Your task to perform on an android device: Search for Italian restaurants on Maps Image 0: 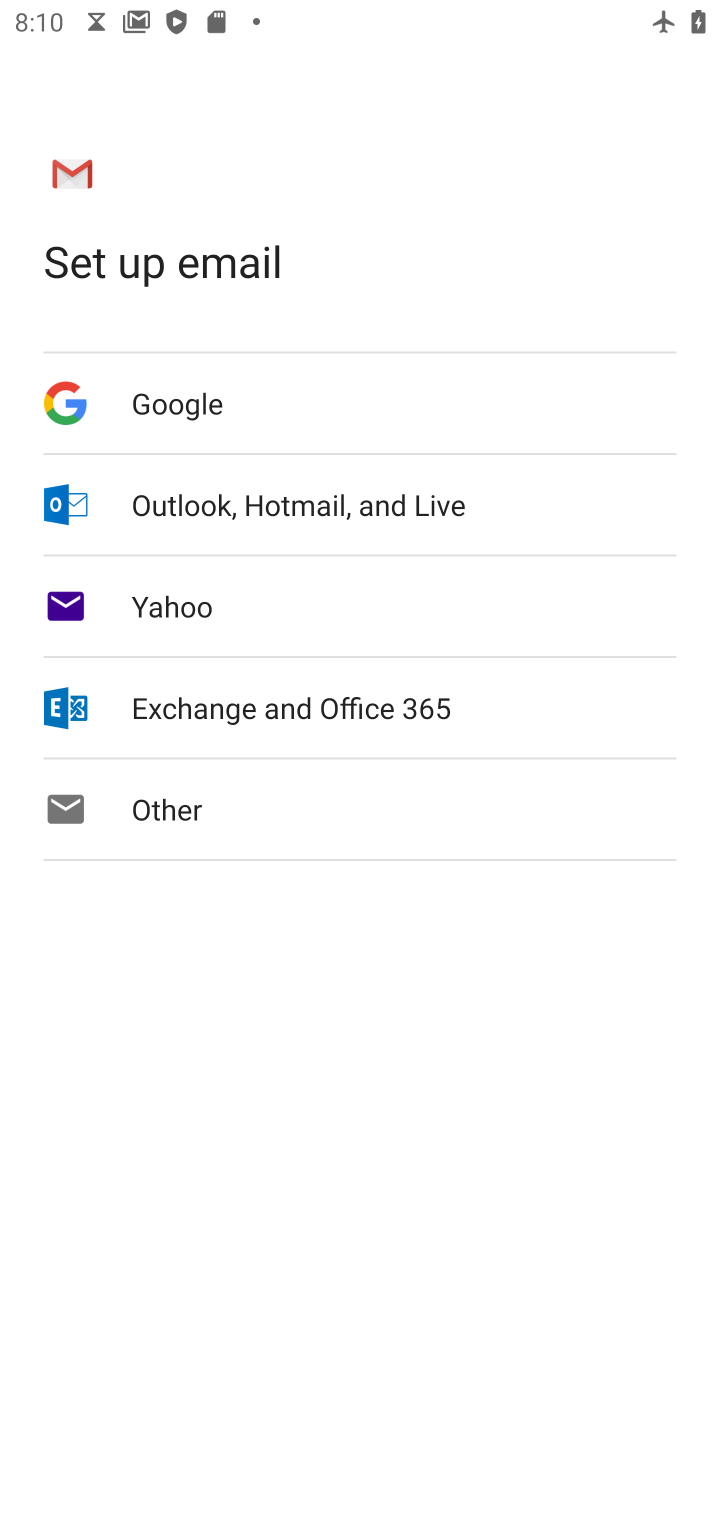
Step 0: press home button
Your task to perform on an android device: Search for Italian restaurants on Maps Image 1: 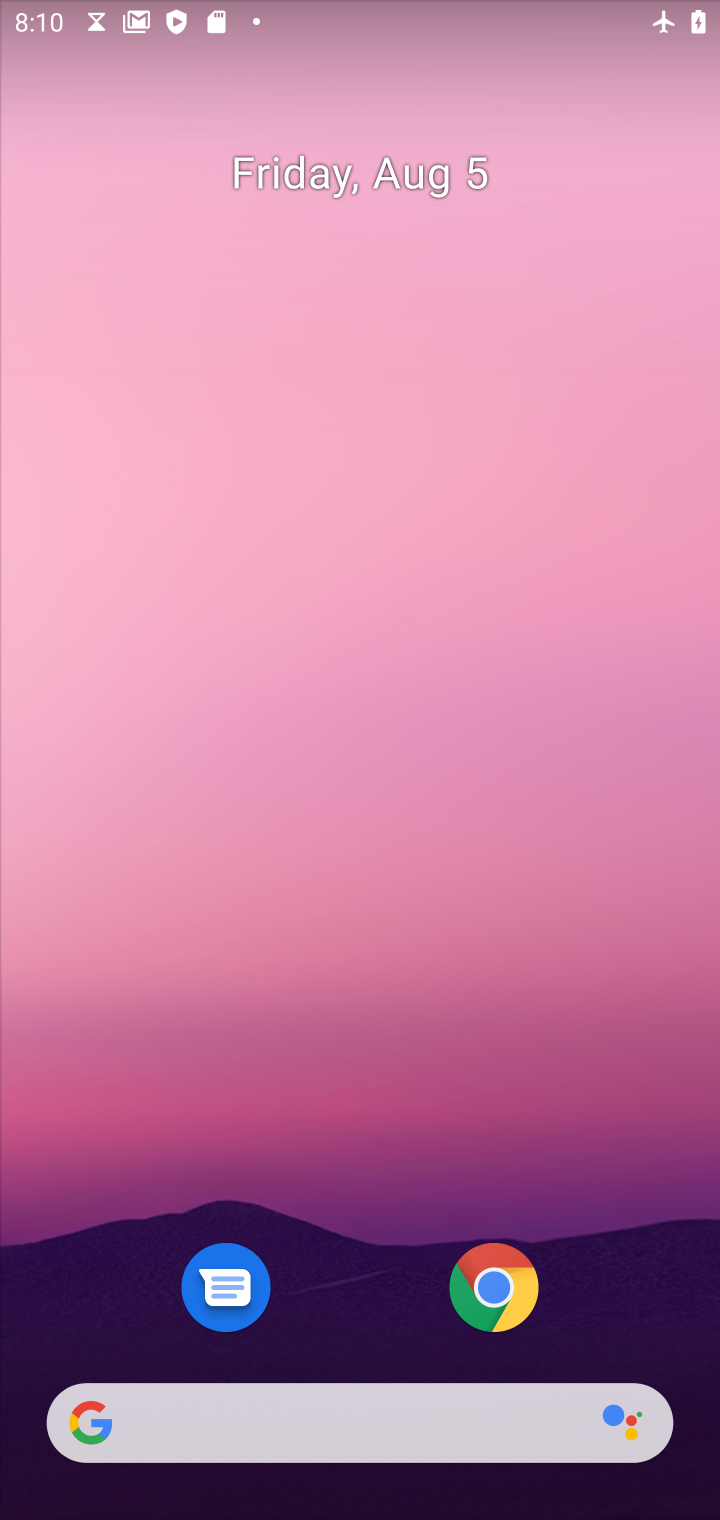
Step 1: drag from (372, 806) to (387, 185)
Your task to perform on an android device: Search for Italian restaurants on Maps Image 2: 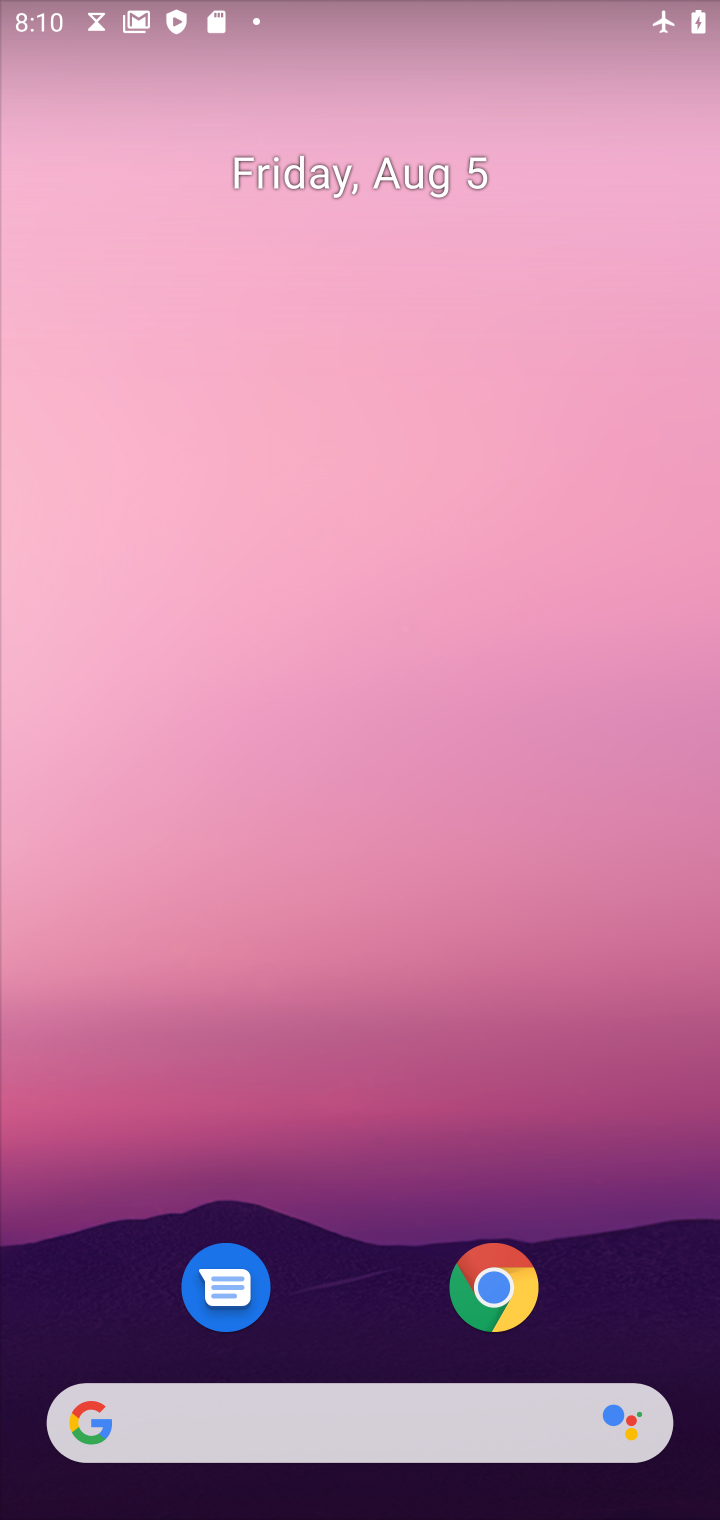
Step 2: drag from (302, 1005) to (293, 359)
Your task to perform on an android device: Search for Italian restaurants on Maps Image 3: 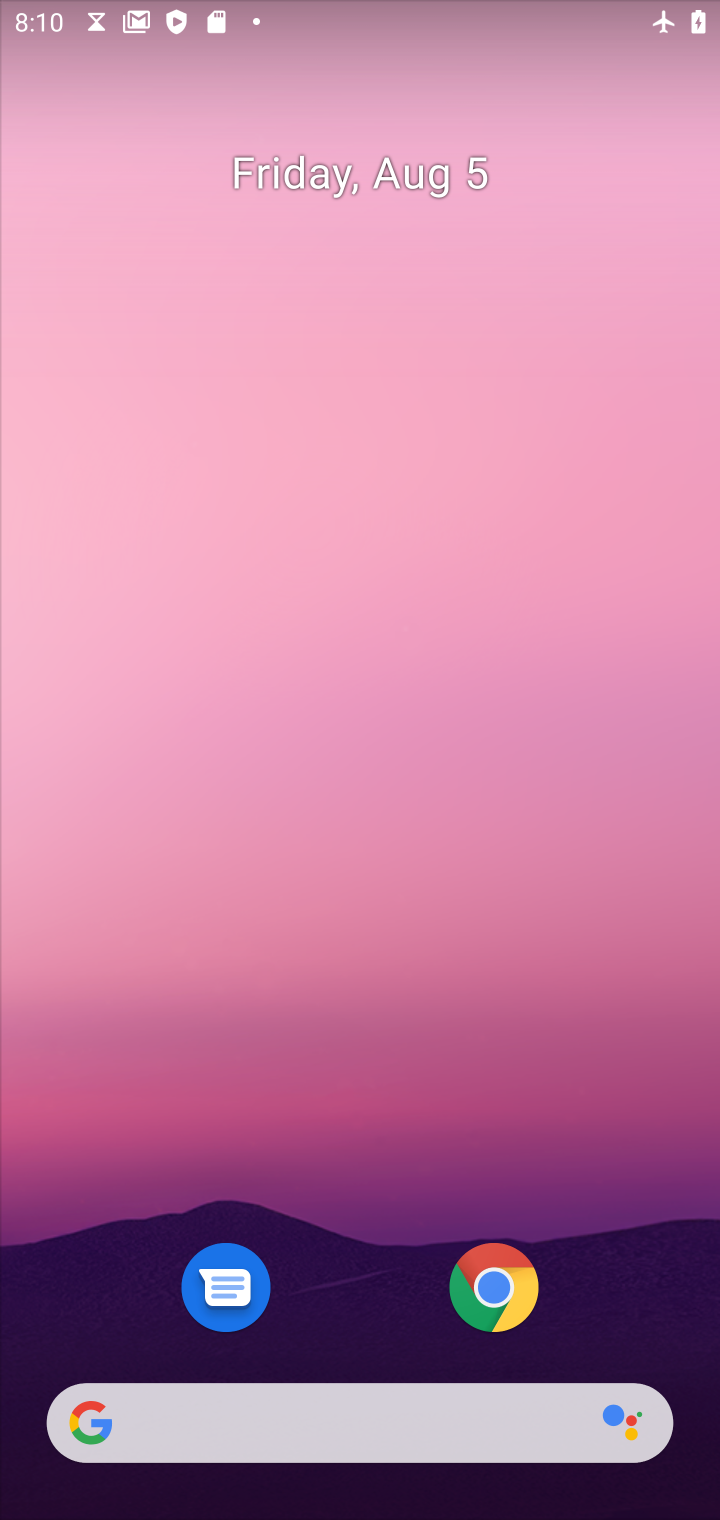
Step 3: drag from (388, 1156) to (388, 113)
Your task to perform on an android device: Search for Italian restaurants on Maps Image 4: 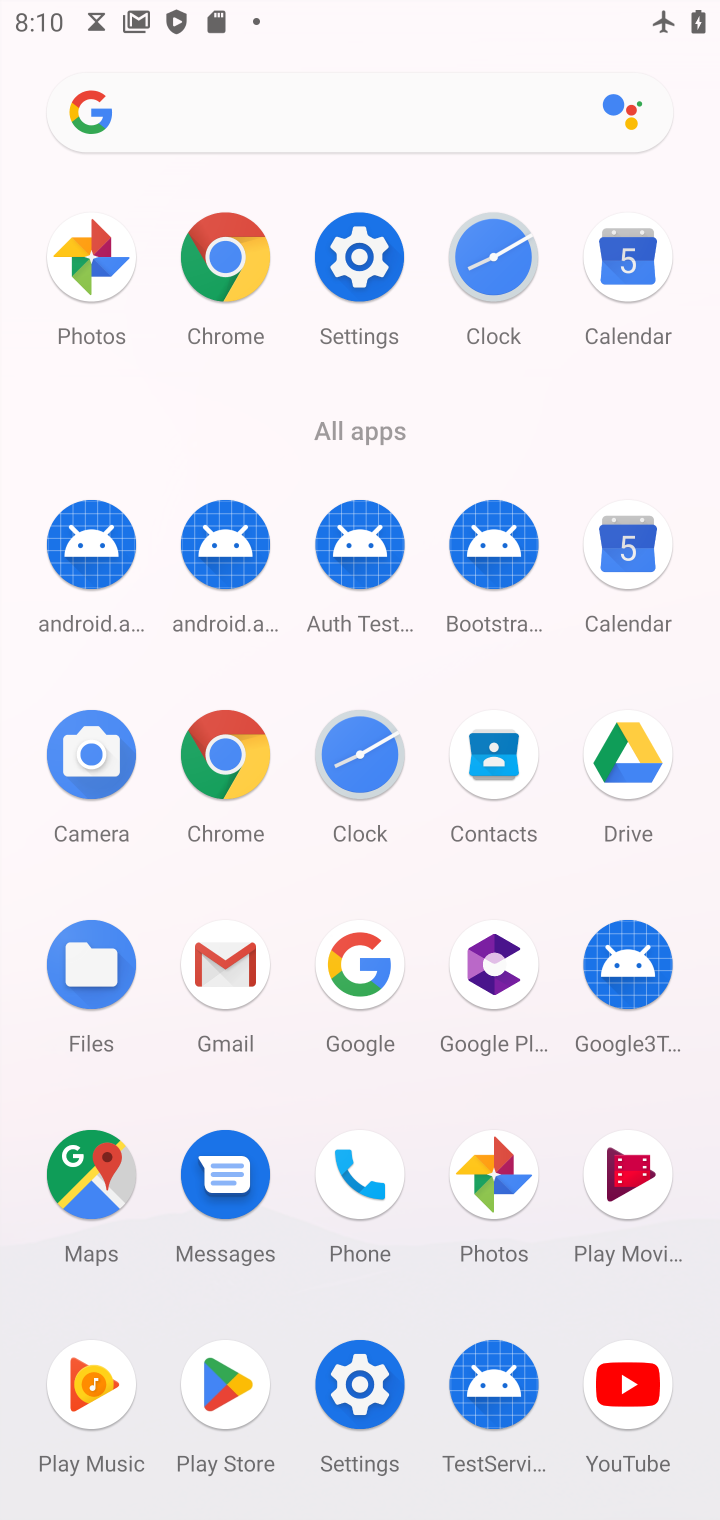
Step 4: click (99, 1153)
Your task to perform on an android device: Search for Italian restaurants on Maps Image 5: 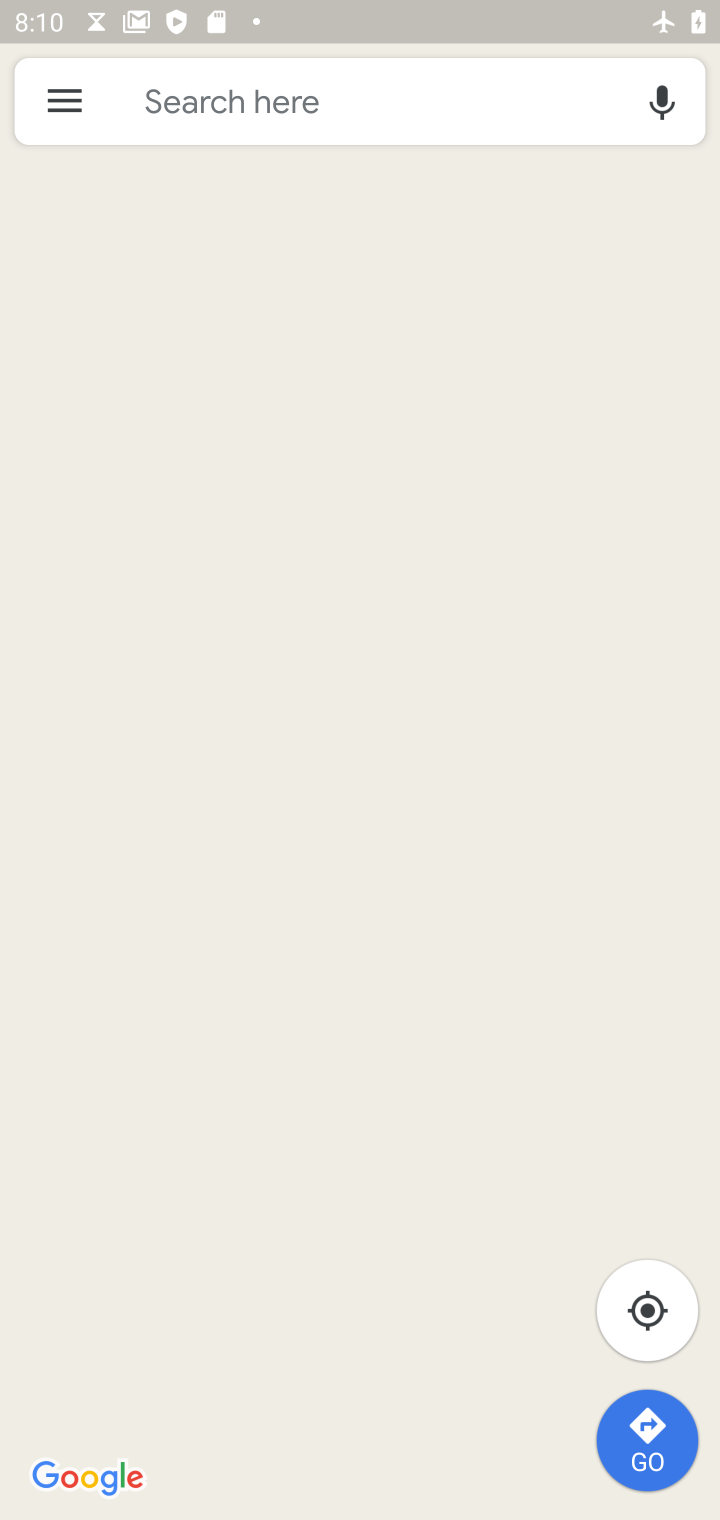
Step 5: click (336, 104)
Your task to perform on an android device: Search for Italian restaurants on Maps Image 6: 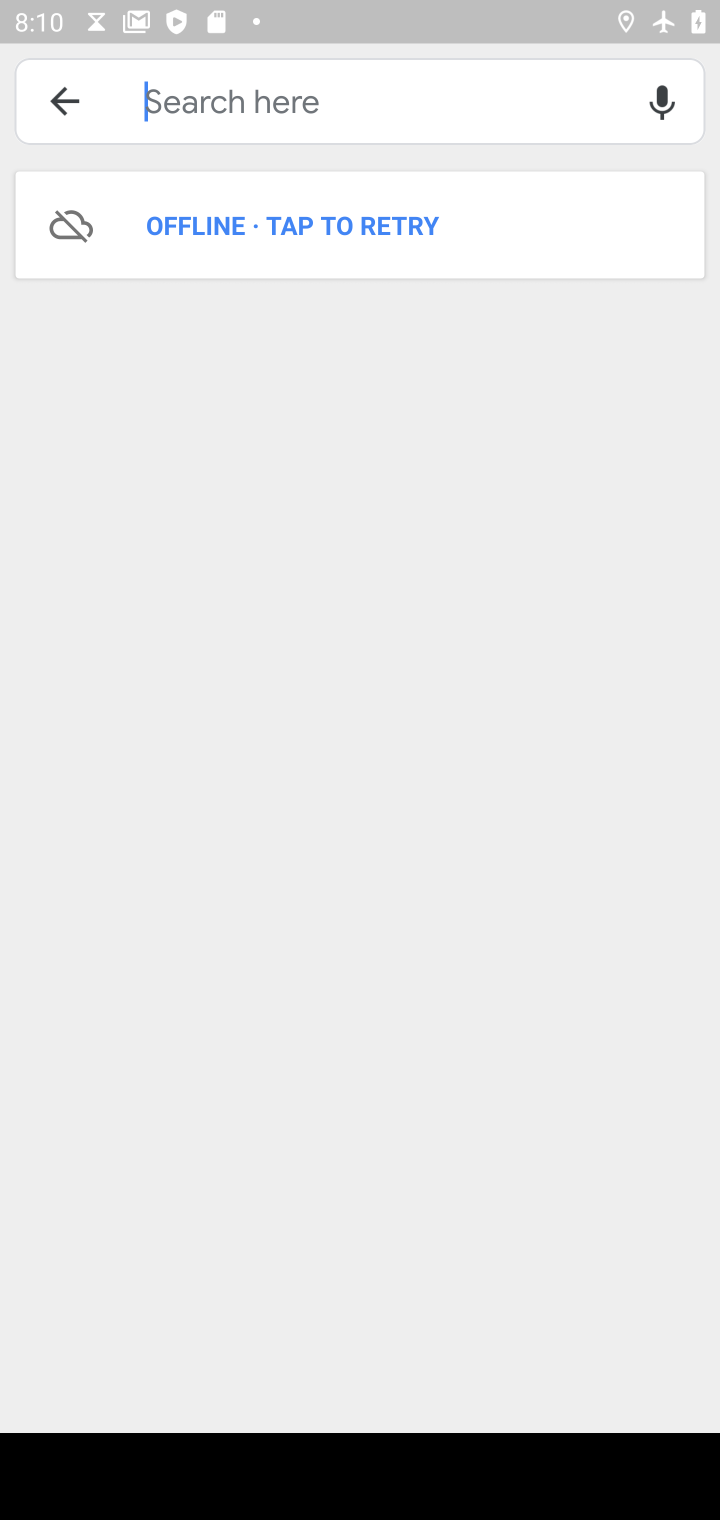
Step 6: type "Italian restaurants"
Your task to perform on an android device: Search for Italian restaurants on Maps Image 7: 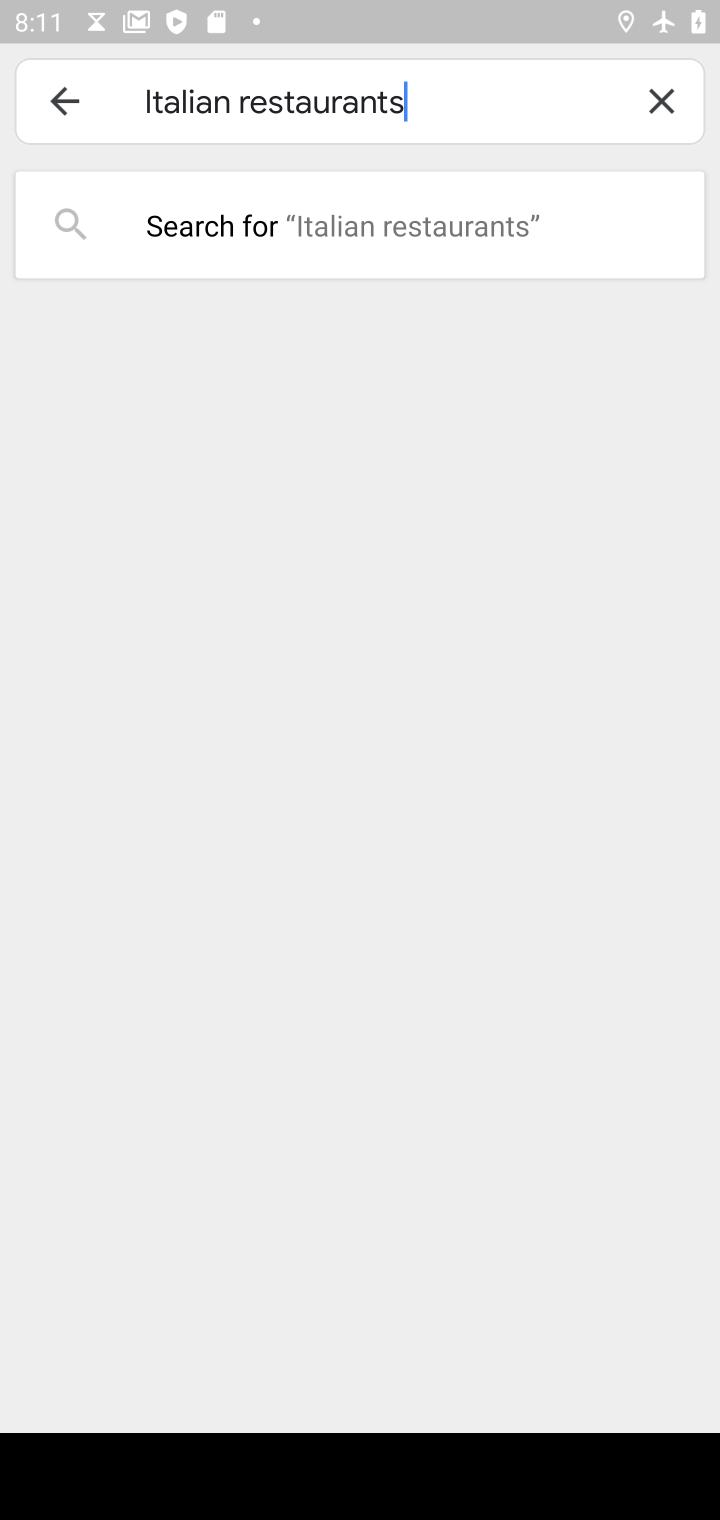
Step 7: task complete